Your task to perform on an android device: make emails show in primary in the gmail app Image 0: 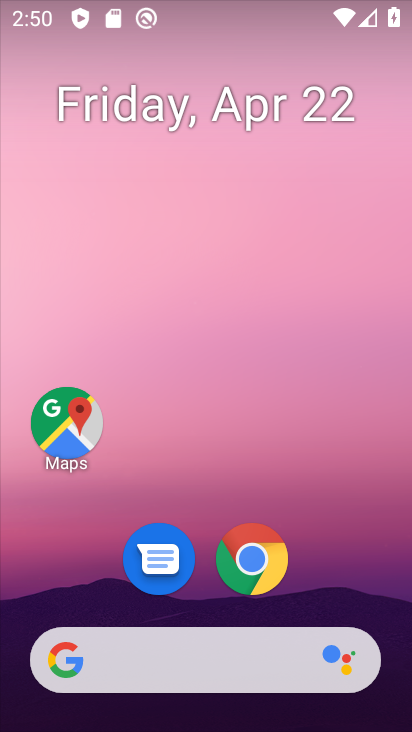
Step 0: drag from (232, 710) to (214, 152)
Your task to perform on an android device: make emails show in primary in the gmail app Image 1: 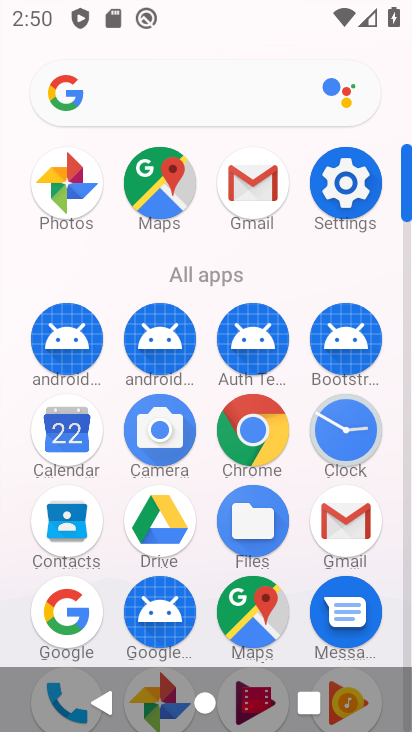
Step 1: click (253, 176)
Your task to perform on an android device: make emails show in primary in the gmail app Image 2: 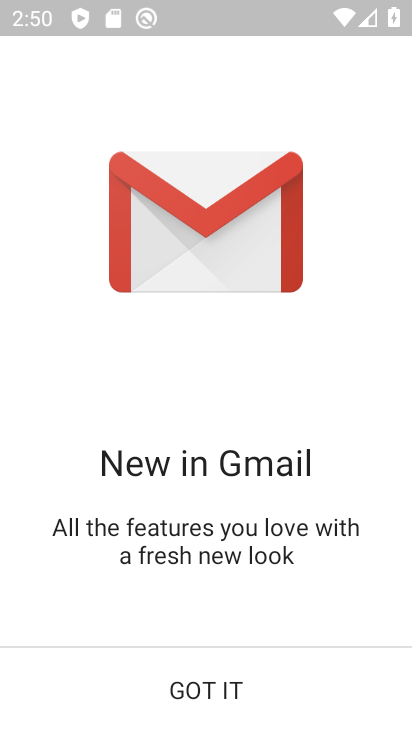
Step 2: click (255, 699)
Your task to perform on an android device: make emails show in primary in the gmail app Image 3: 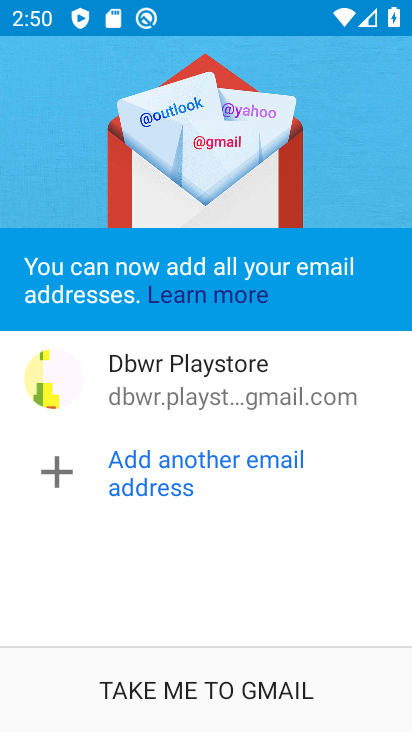
Step 3: click (256, 699)
Your task to perform on an android device: make emails show in primary in the gmail app Image 4: 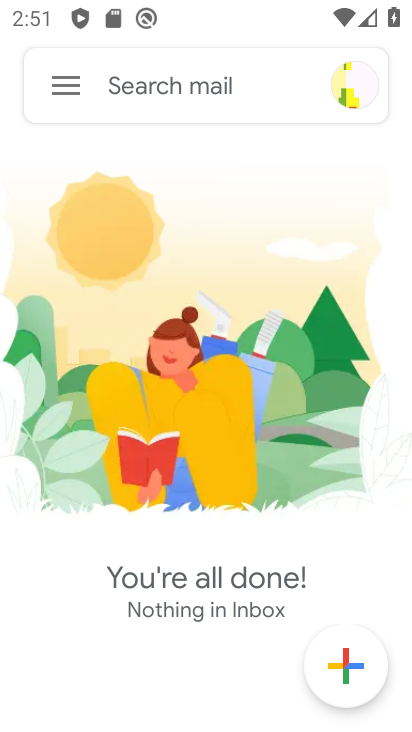
Step 4: click (57, 78)
Your task to perform on an android device: make emails show in primary in the gmail app Image 5: 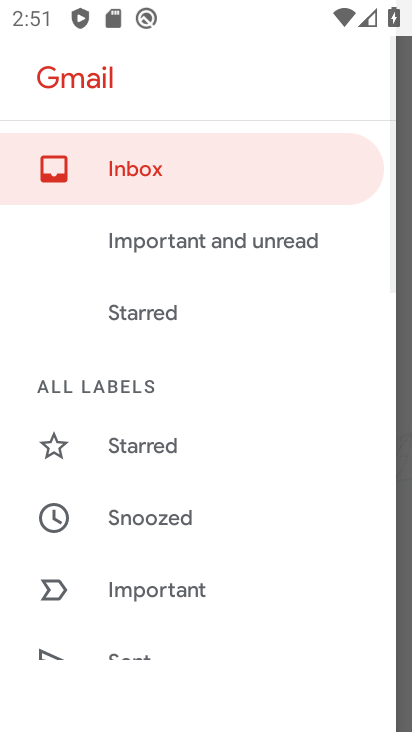
Step 5: drag from (188, 540) to (187, 28)
Your task to perform on an android device: make emails show in primary in the gmail app Image 6: 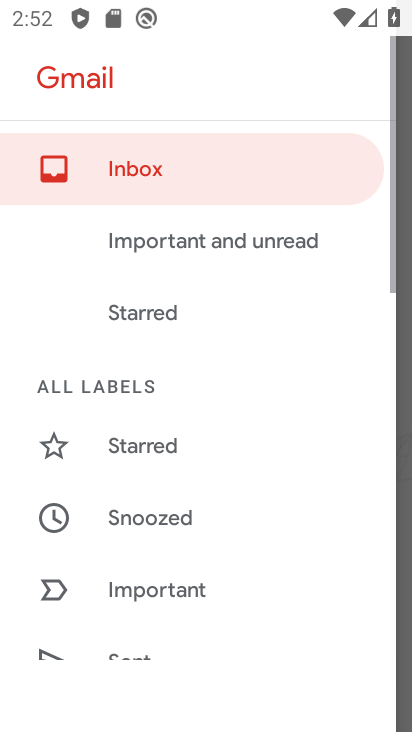
Step 6: drag from (237, 627) to (276, 17)
Your task to perform on an android device: make emails show in primary in the gmail app Image 7: 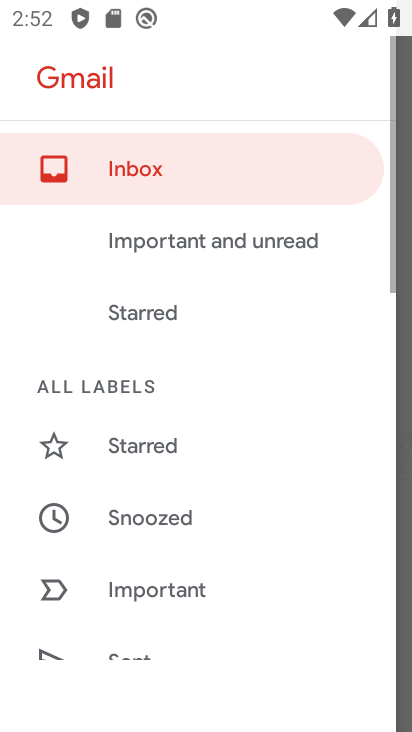
Step 7: drag from (217, 581) to (282, 19)
Your task to perform on an android device: make emails show in primary in the gmail app Image 8: 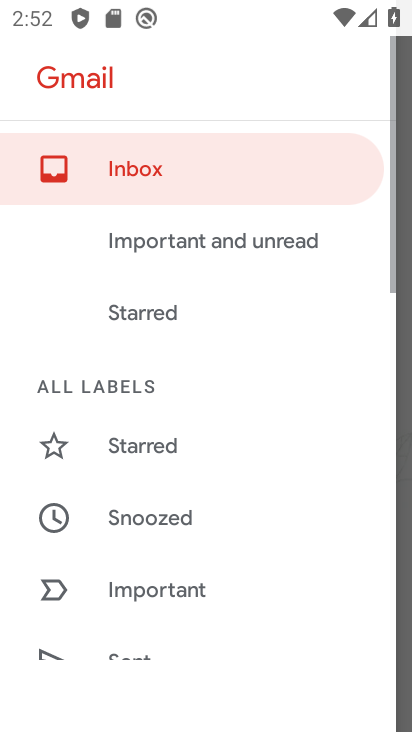
Step 8: drag from (227, 475) to (347, 43)
Your task to perform on an android device: make emails show in primary in the gmail app Image 9: 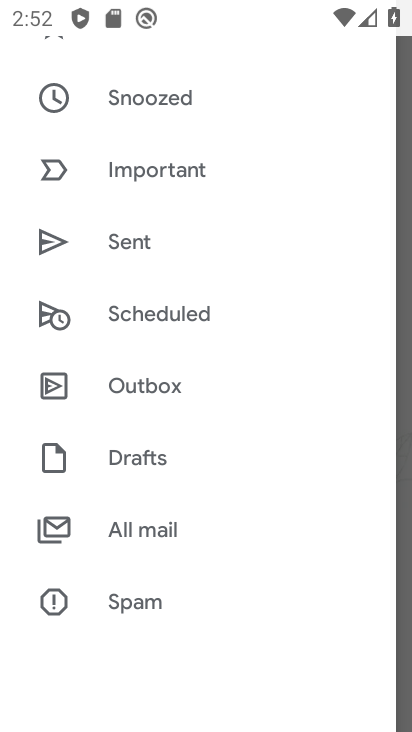
Step 9: drag from (169, 540) to (264, 24)
Your task to perform on an android device: make emails show in primary in the gmail app Image 10: 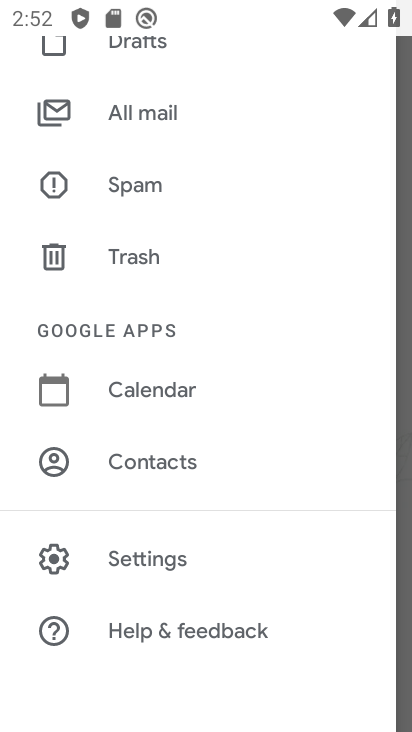
Step 10: click (170, 574)
Your task to perform on an android device: make emails show in primary in the gmail app Image 11: 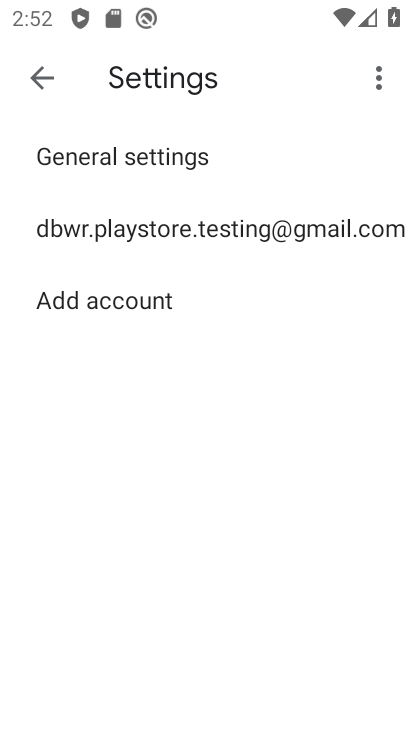
Step 11: click (159, 227)
Your task to perform on an android device: make emails show in primary in the gmail app Image 12: 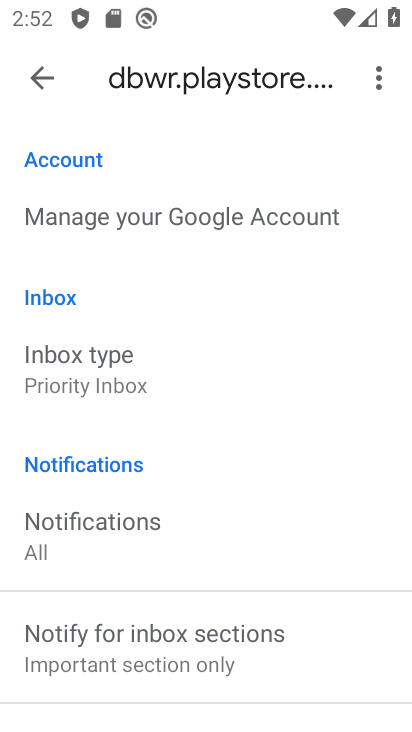
Step 12: click (113, 364)
Your task to perform on an android device: make emails show in primary in the gmail app Image 13: 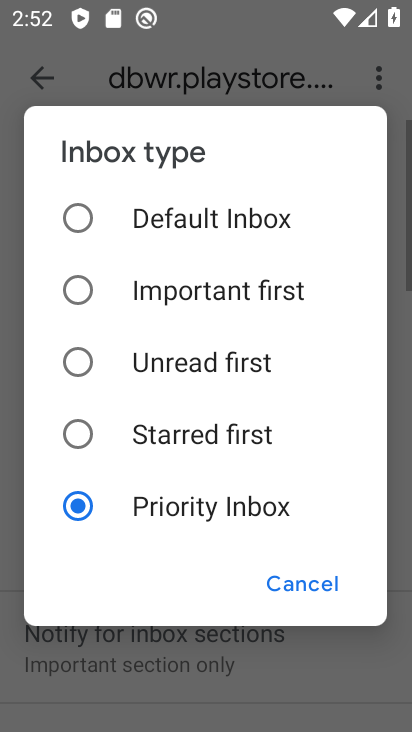
Step 13: click (164, 211)
Your task to perform on an android device: make emails show in primary in the gmail app Image 14: 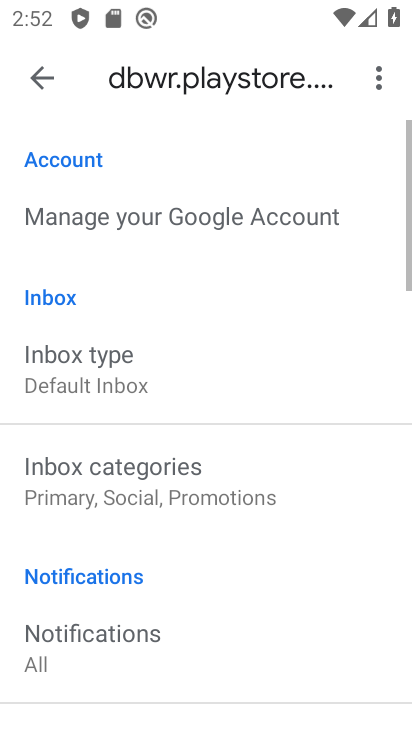
Step 14: click (171, 388)
Your task to perform on an android device: make emails show in primary in the gmail app Image 15: 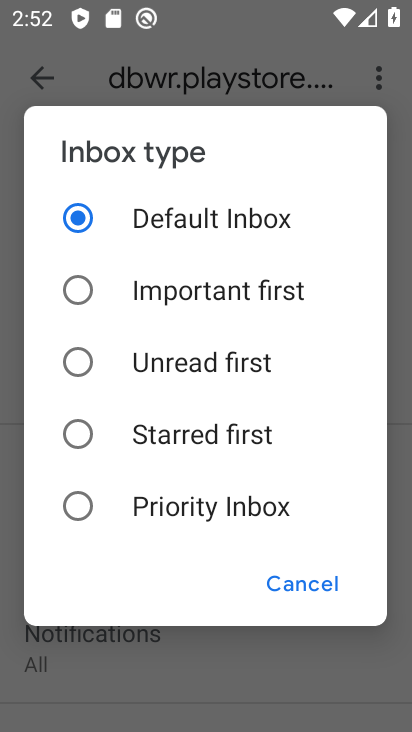
Step 15: click (314, 576)
Your task to perform on an android device: make emails show in primary in the gmail app Image 16: 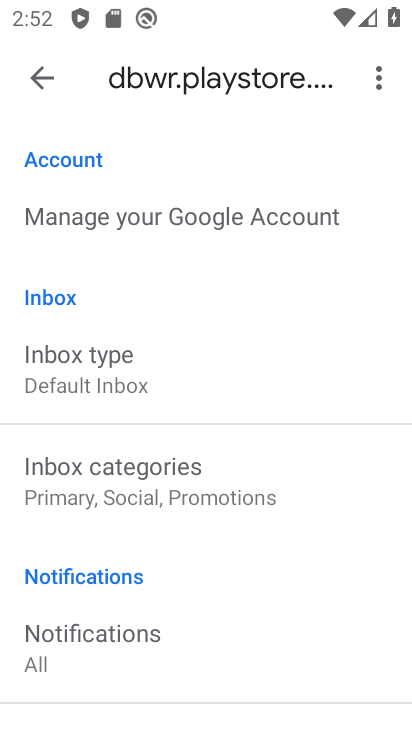
Step 16: click (175, 488)
Your task to perform on an android device: make emails show in primary in the gmail app Image 17: 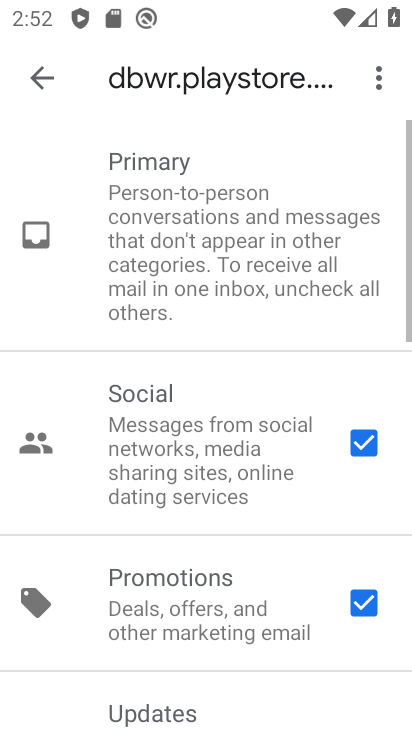
Step 17: click (378, 442)
Your task to perform on an android device: make emails show in primary in the gmail app Image 18: 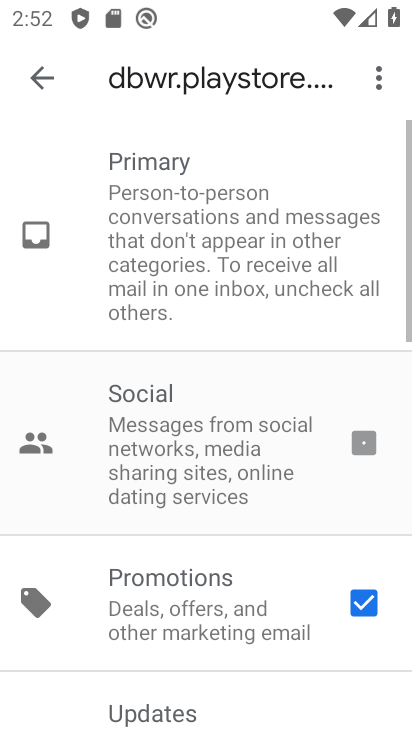
Step 18: click (375, 612)
Your task to perform on an android device: make emails show in primary in the gmail app Image 19: 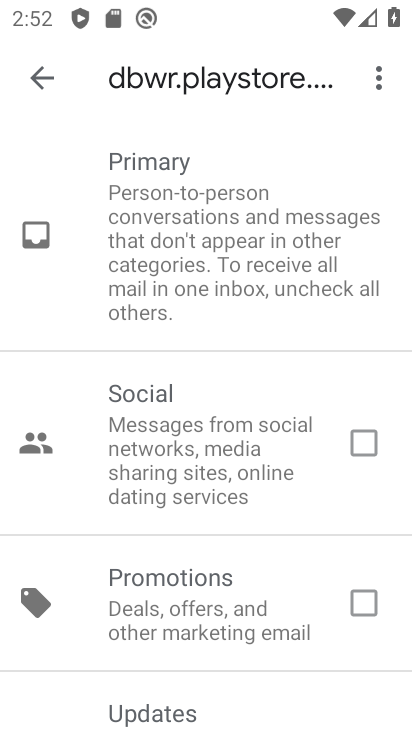
Step 19: task complete